Your task to perform on an android device: check google app version Image 0: 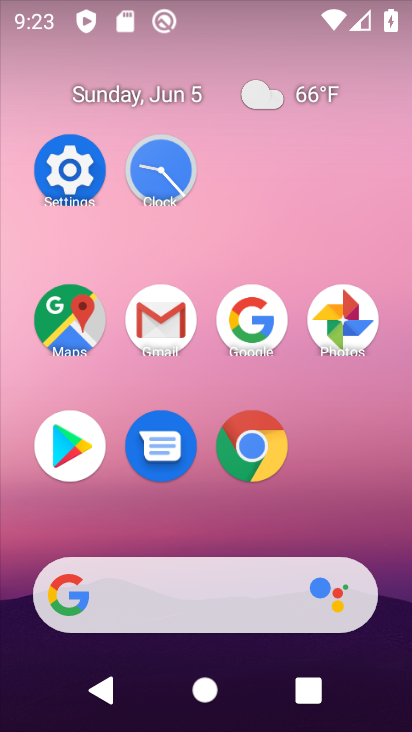
Step 0: click (246, 337)
Your task to perform on an android device: check google app version Image 1: 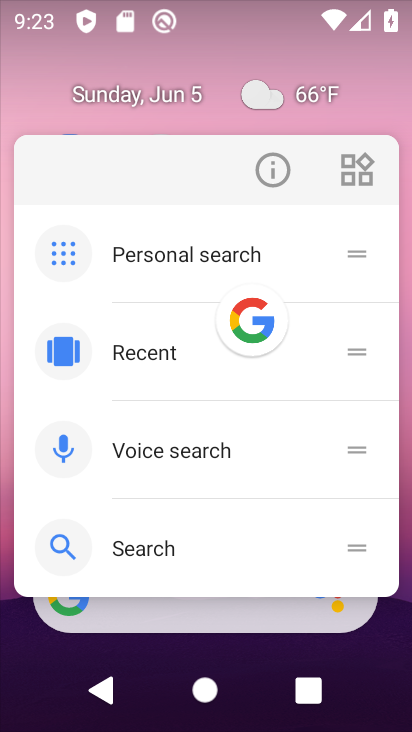
Step 1: click (289, 173)
Your task to perform on an android device: check google app version Image 2: 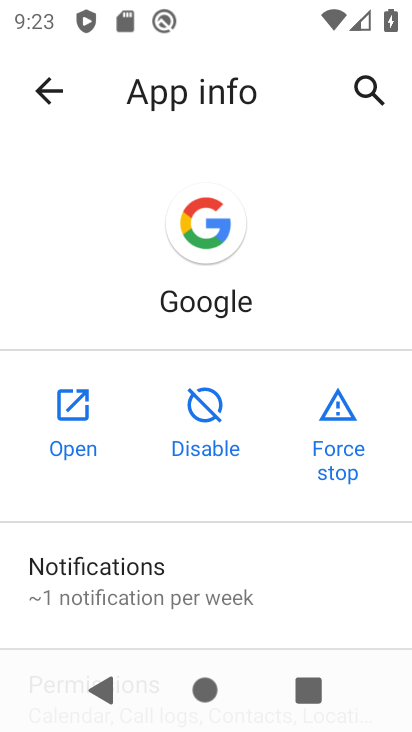
Step 2: drag from (239, 560) to (227, 270)
Your task to perform on an android device: check google app version Image 3: 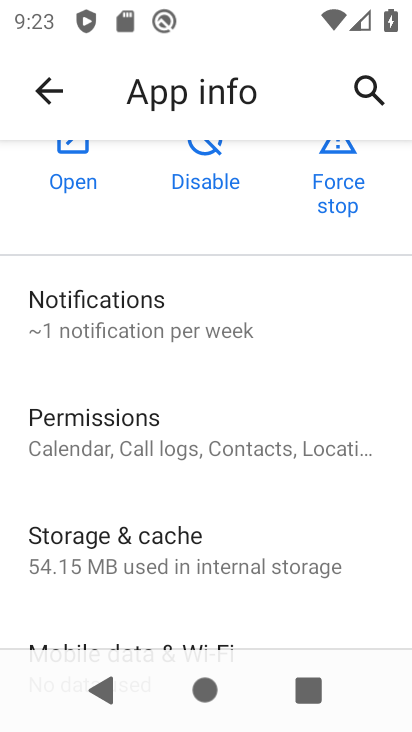
Step 3: drag from (250, 540) to (249, 254)
Your task to perform on an android device: check google app version Image 4: 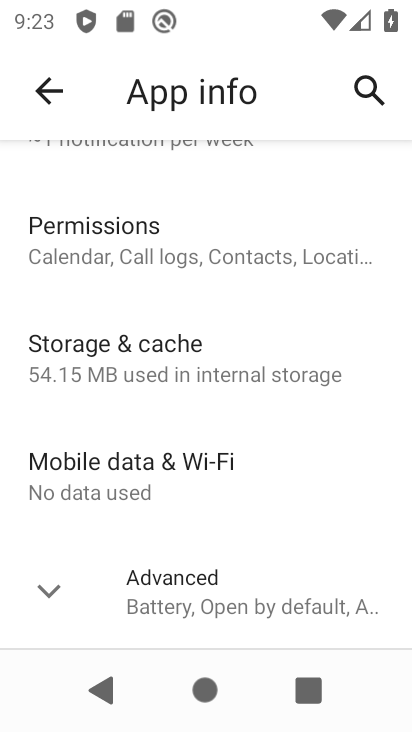
Step 4: click (236, 599)
Your task to perform on an android device: check google app version Image 5: 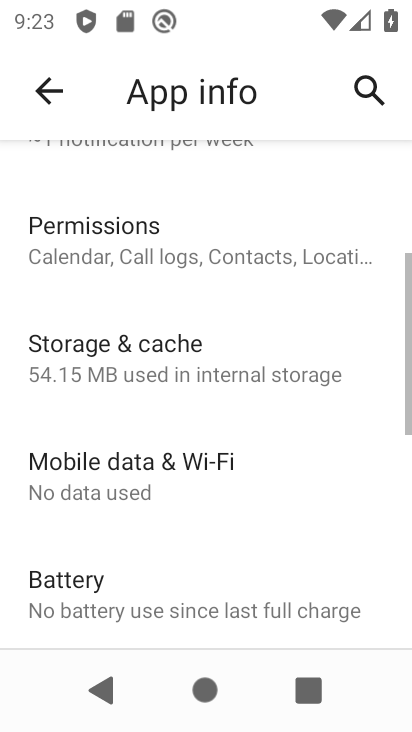
Step 5: task complete